Your task to perform on an android device: Open Chrome and go to settings Image 0: 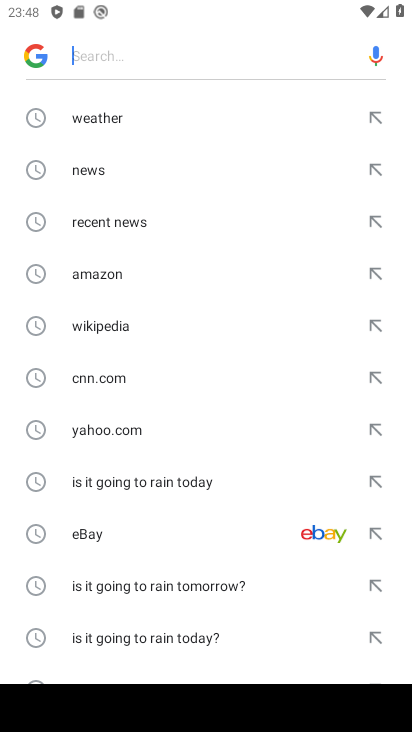
Step 0: press home button
Your task to perform on an android device: Open Chrome and go to settings Image 1: 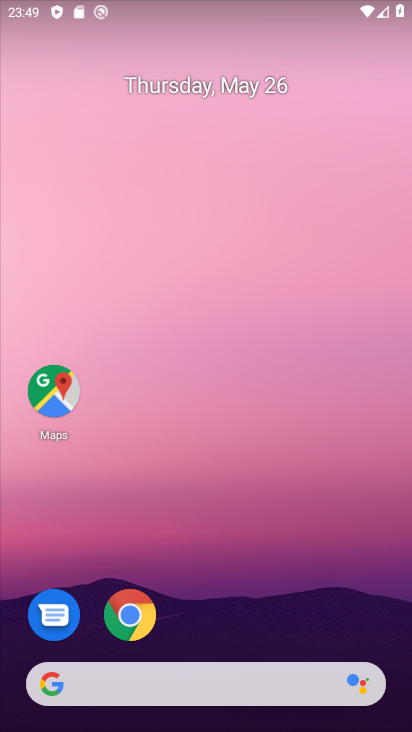
Step 1: click (131, 627)
Your task to perform on an android device: Open Chrome and go to settings Image 2: 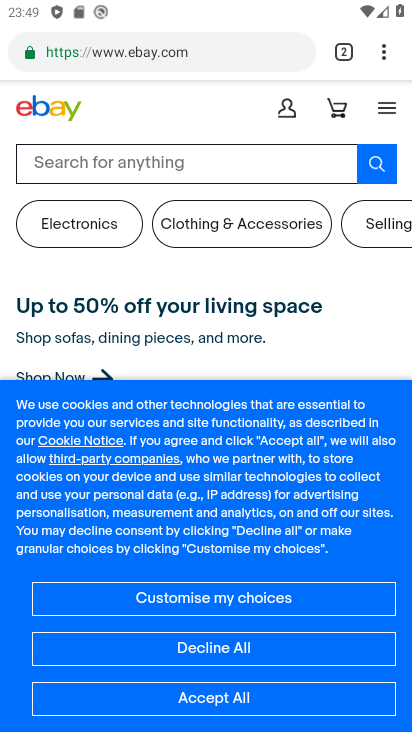
Step 2: task complete